Your task to perform on an android device: open chrome and create a bookmark for the current page Image 0: 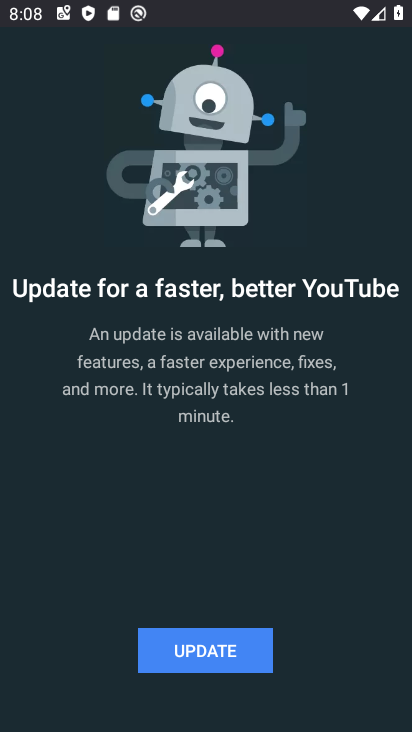
Step 0: press home button
Your task to perform on an android device: open chrome and create a bookmark for the current page Image 1: 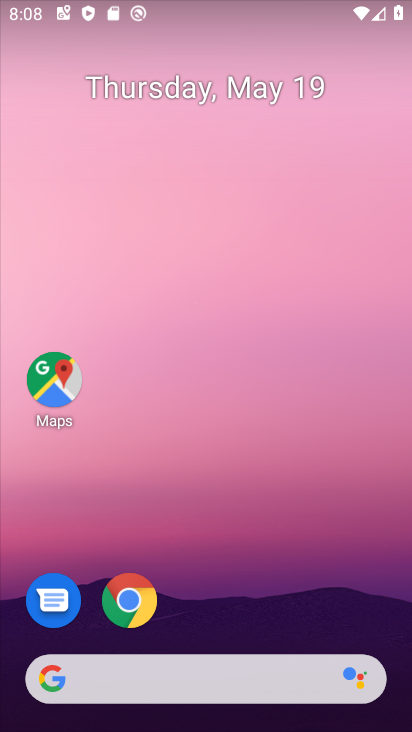
Step 1: click (136, 604)
Your task to perform on an android device: open chrome and create a bookmark for the current page Image 2: 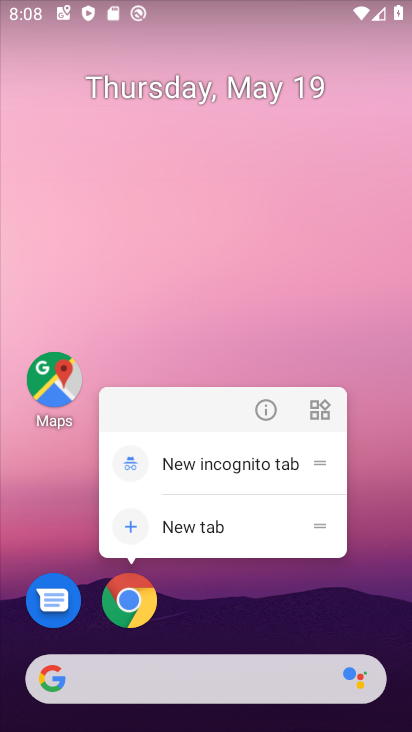
Step 2: click (136, 603)
Your task to perform on an android device: open chrome and create a bookmark for the current page Image 3: 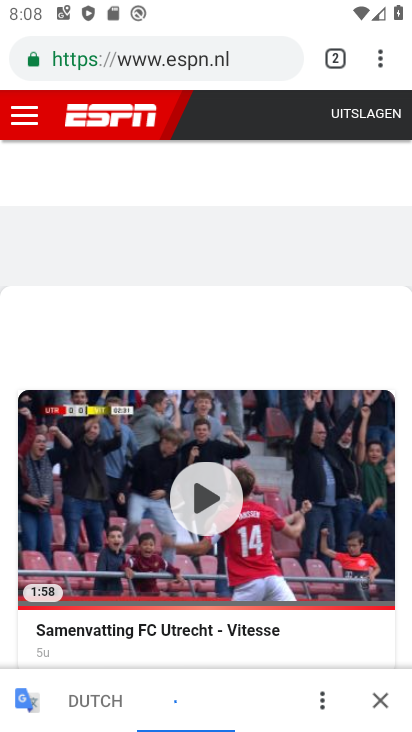
Step 3: click (381, 51)
Your task to perform on an android device: open chrome and create a bookmark for the current page Image 4: 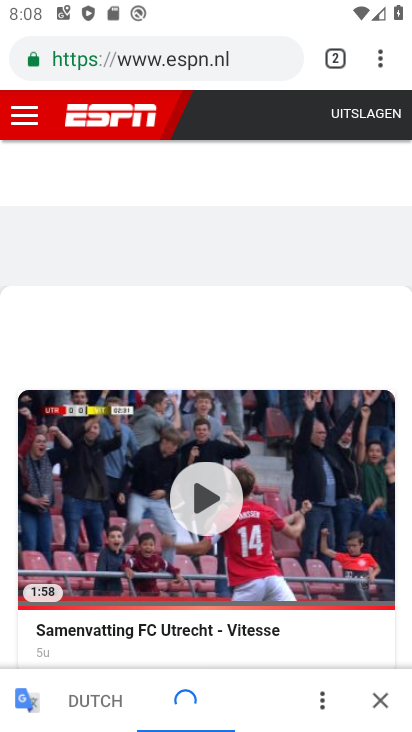
Step 4: click (382, 61)
Your task to perform on an android device: open chrome and create a bookmark for the current page Image 5: 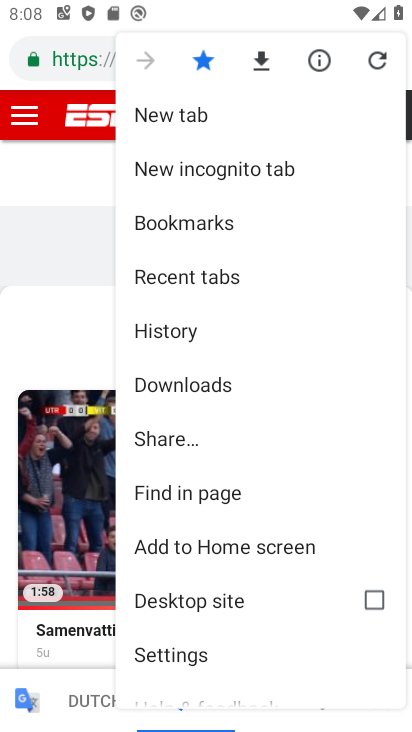
Step 5: task complete